Your task to perform on an android device: toggle airplane mode Image 0: 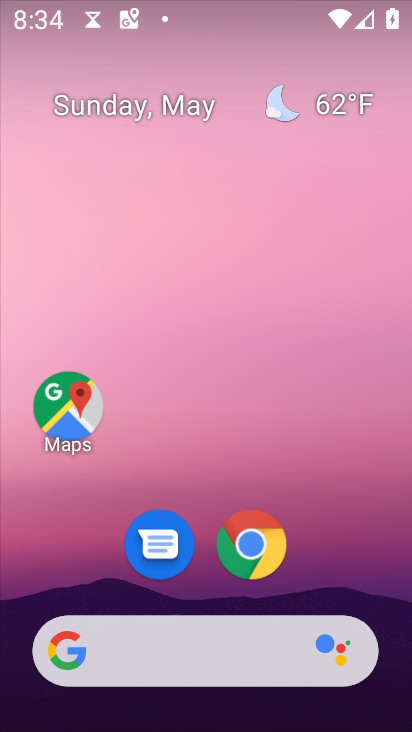
Step 0: click (239, 101)
Your task to perform on an android device: toggle airplane mode Image 1: 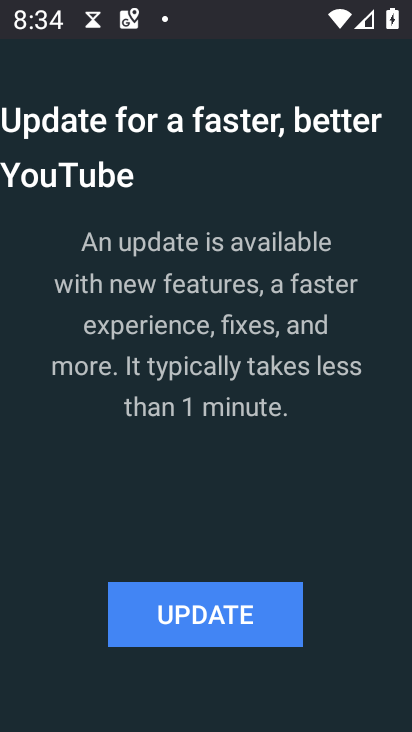
Step 1: press home button
Your task to perform on an android device: toggle airplane mode Image 2: 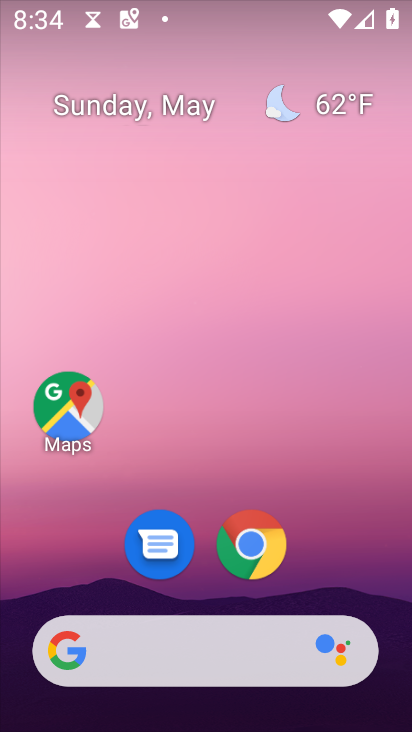
Step 2: drag from (275, 21) to (209, 2)
Your task to perform on an android device: toggle airplane mode Image 3: 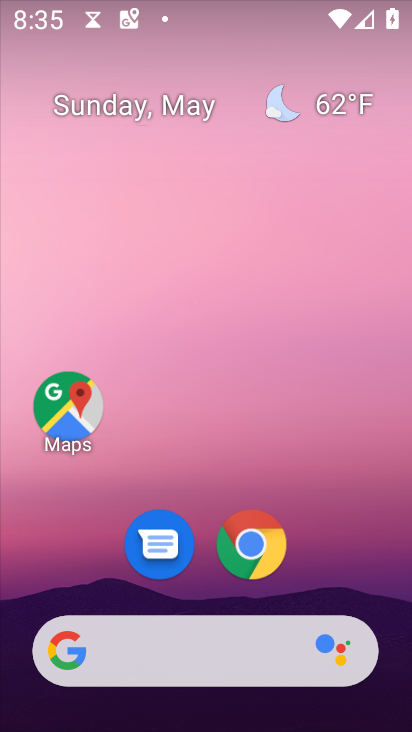
Step 3: drag from (309, 492) to (288, 2)
Your task to perform on an android device: toggle airplane mode Image 4: 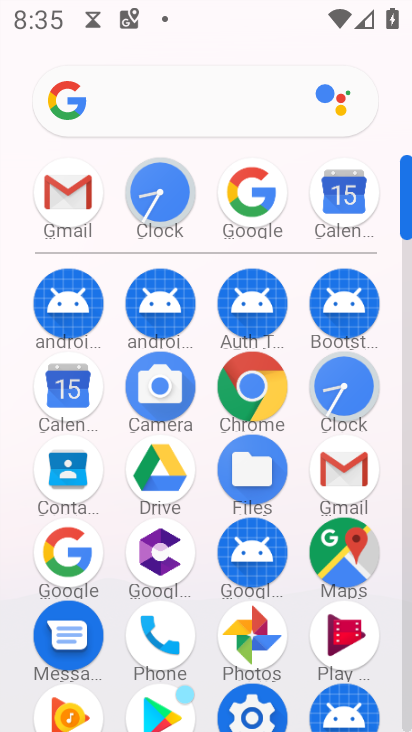
Step 4: drag from (196, 655) to (176, 317)
Your task to perform on an android device: toggle airplane mode Image 5: 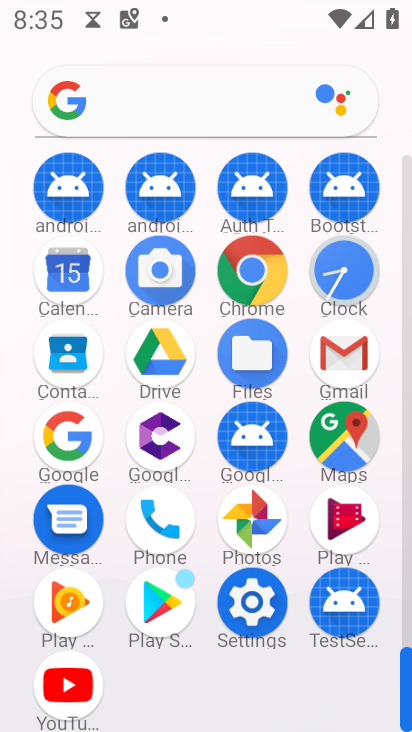
Step 5: click (250, 612)
Your task to perform on an android device: toggle airplane mode Image 6: 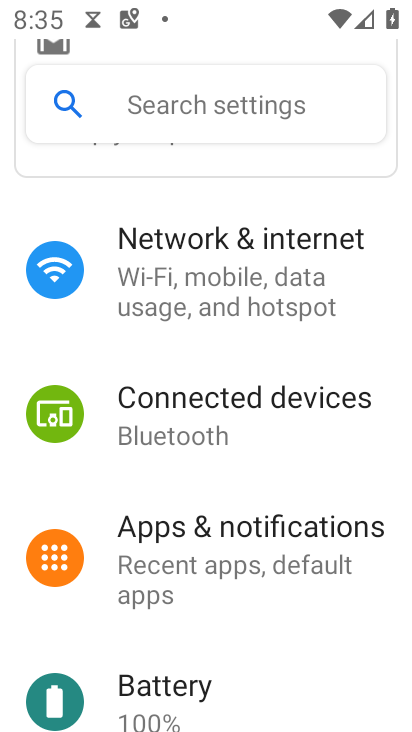
Step 6: click (196, 281)
Your task to perform on an android device: toggle airplane mode Image 7: 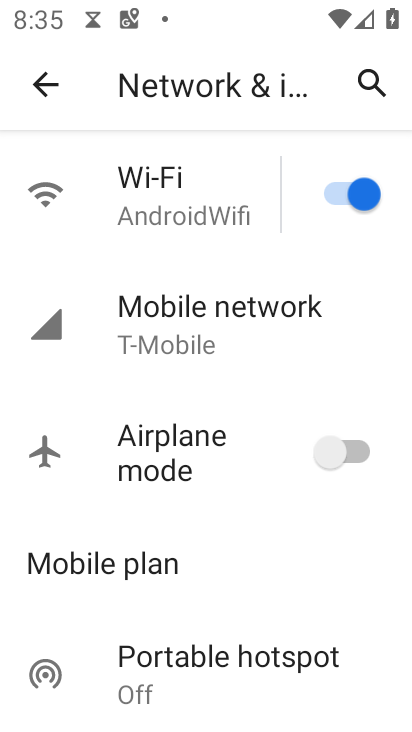
Step 7: click (369, 470)
Your task to perform on an android device: toggle airplane mode Image 8: 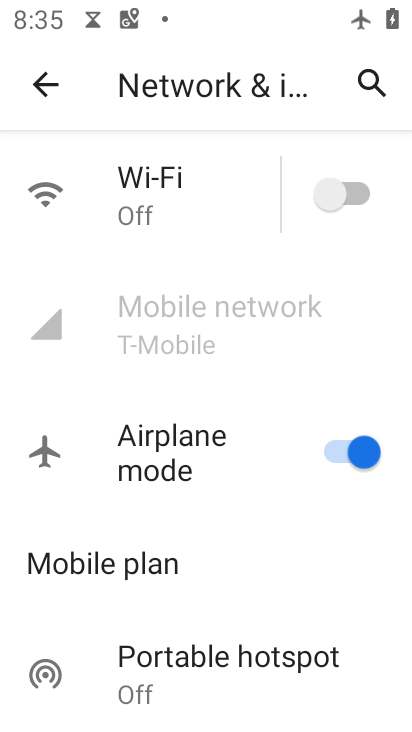
Step 8: task complete